Your task to perform on an android device: turn on bluetooth scan Image 0: 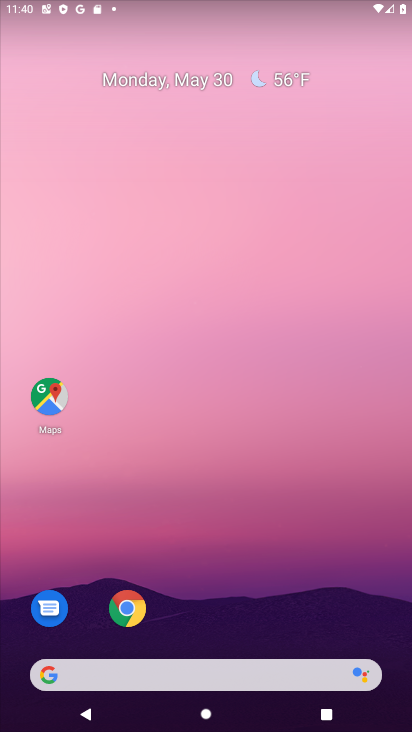
Step 0: drag from (230, 596) to (267, 172)
Your task to perform on an android device: turn on bluetooth scan Image 1: 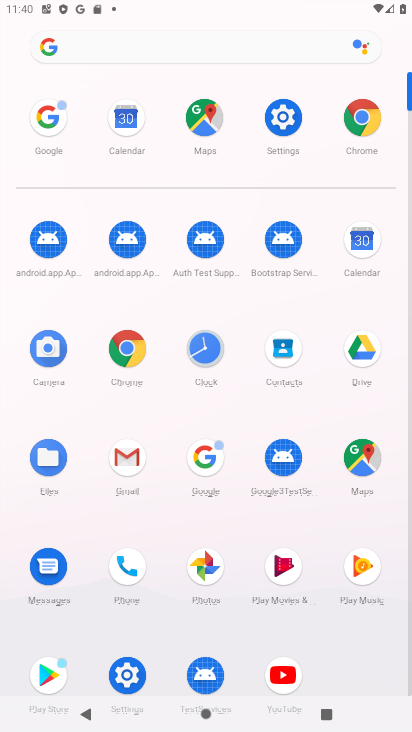
Step 1: click (288, 119)
Your task to perform on an android device: turn on bluetooth scan Image 2: 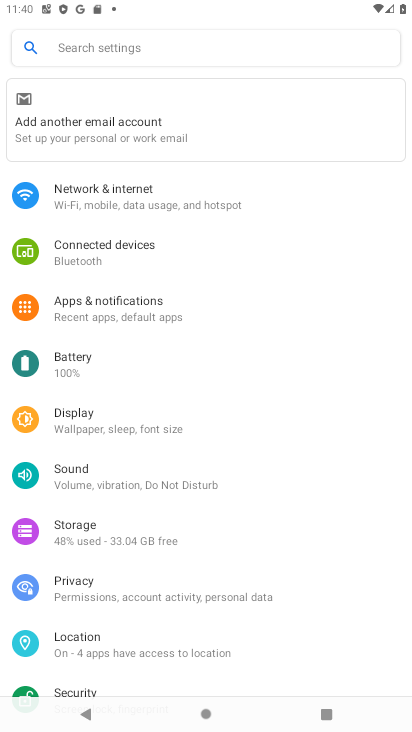
Step 2: click (106, 638)
Your task to perform on an android device: turn on bluetooth scan Image 3: 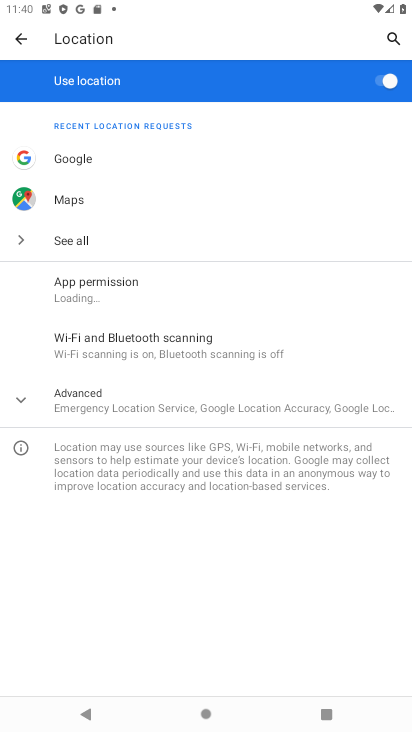
Step 3: click (112, 291)
Your task to perform on an android device: turn on bluetooth scan Image 4: 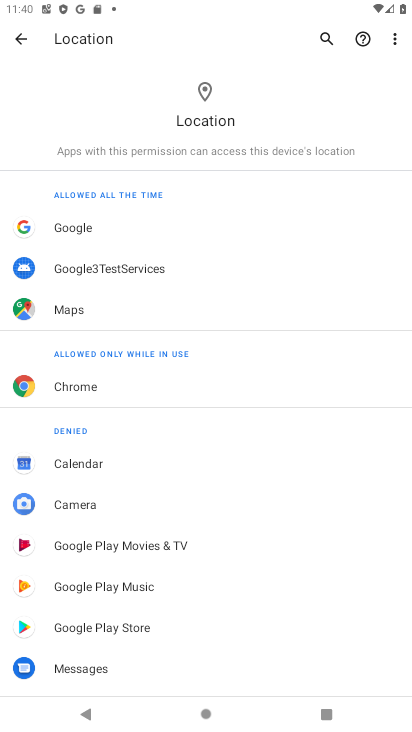
Step 4: press back button
Your task to perform on an android device: turn on bluetooth scan Image 5: 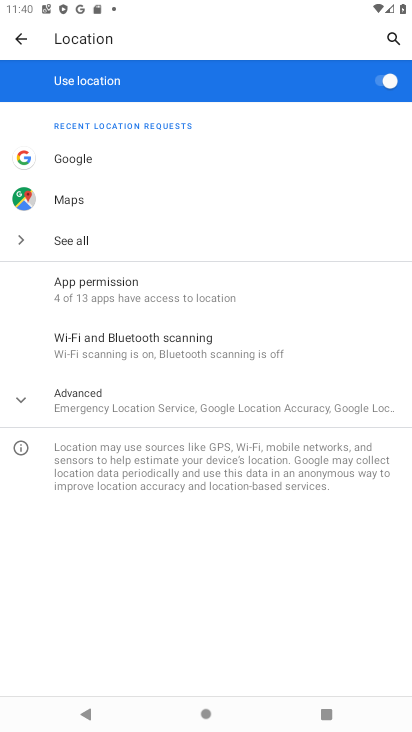
Step 5: click (84, 387)
Your task to perform on an android device: turn on bluetooth scan Image 6: 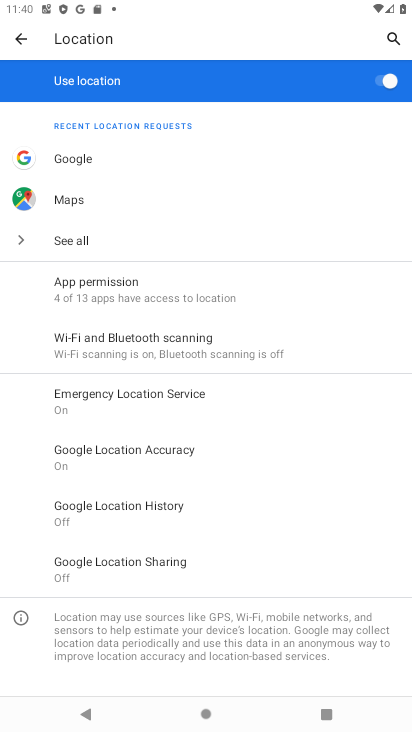
Step 6: click (114, 339)
Your task to perform on an android device: turn on bluetooth scan Image 7: 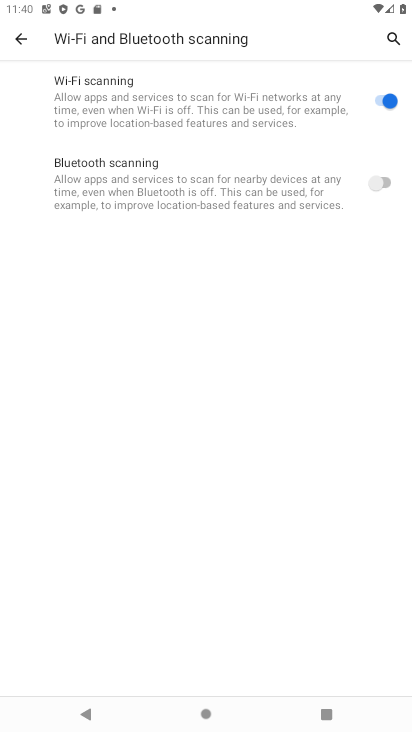
Step 7: click (385, 174)
Your task to perform on an android device: turn on bluetooth scan Image 8: 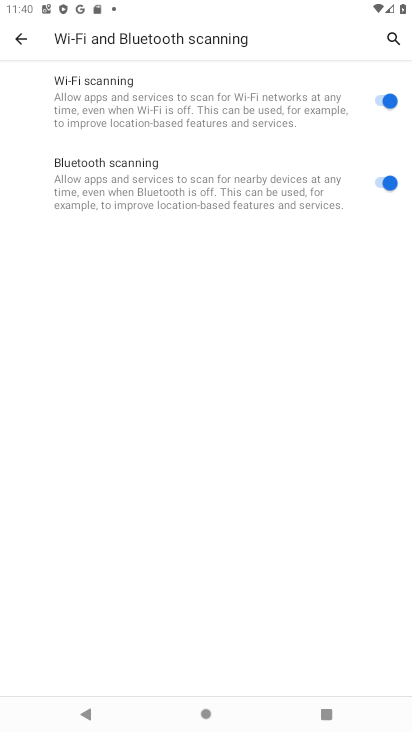
Step 8: task complete